Your task to perform on an android device: Open Google Chrome and open the bookmarks view Image 0: 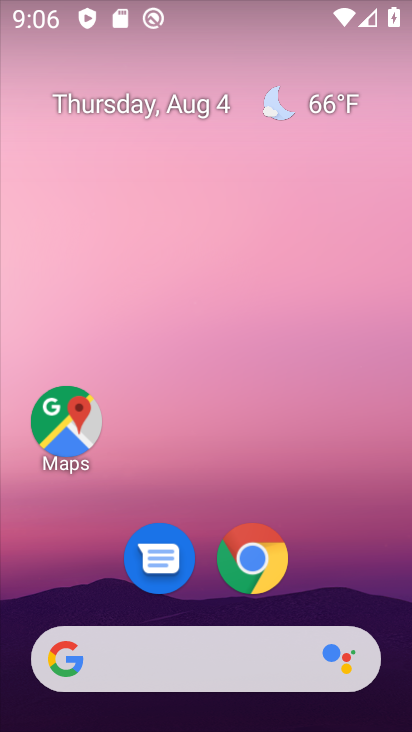
Step 0: drag from (333, 544) to (303, 109)
Your task to perform on an android device: Open Google Chrome and open the bookmarks view Image 1: 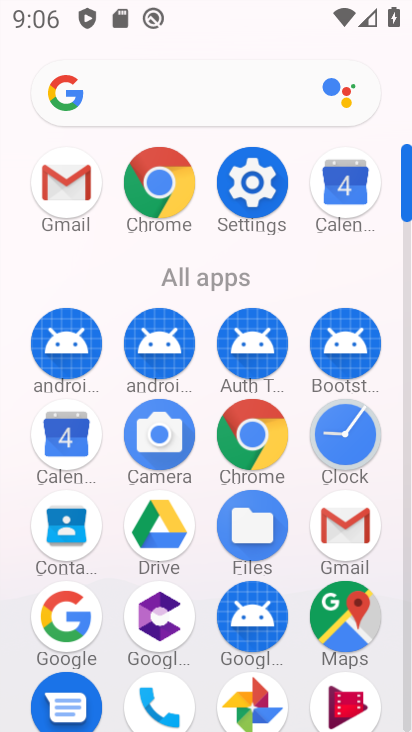
Step 1: click (252, 422)
Your task to perform on an android device: Open Google Chrome and open the bookmarks view Image 2: 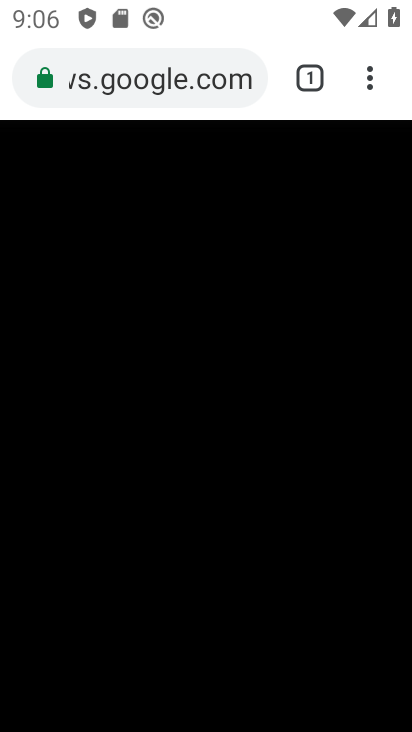
Step 2: task complete